Your task to perform on an android device: When is my next appointment? Image 0: 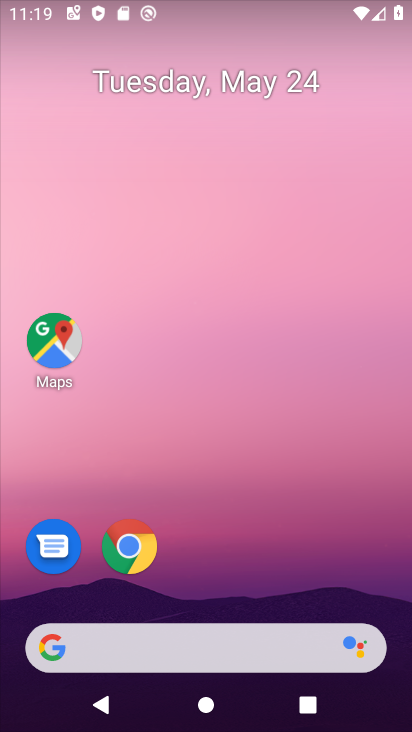
Step 0: drag from (228, 597) to (232, 248)
Your task to perform on an android device: When is my next appointment? Image 1: 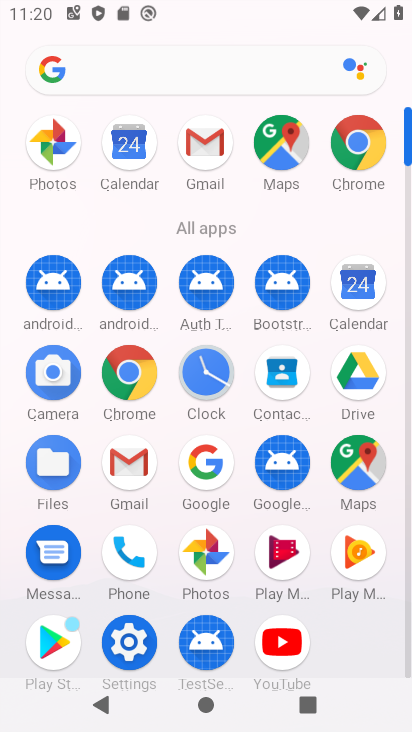
Step 1: click (134, 155)
Your task to perform on an android device: When is my next appointment? Image 2: 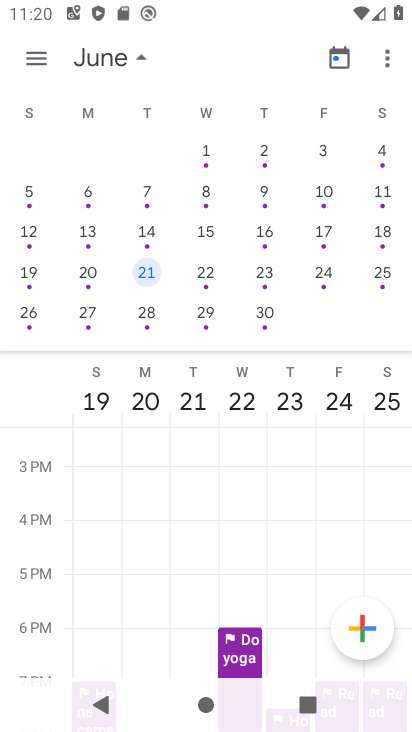
Step 2: click (36, 58)
Your task to perform on an android device: When is my next appointment? Image 3: 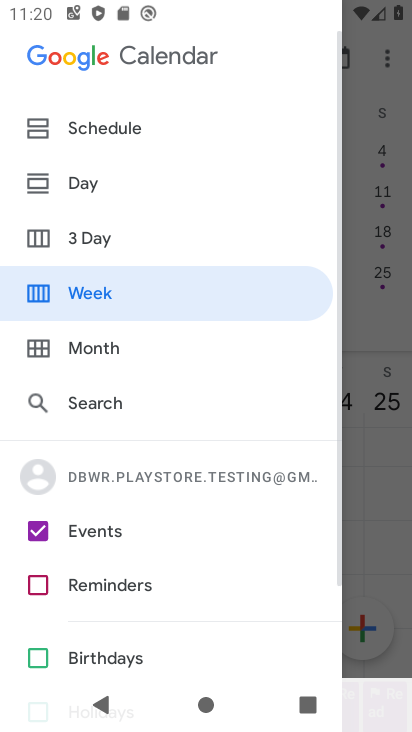
Step 3: click (77, 133)
Your task to perform on an android device: When is my next appointment? Image 4: 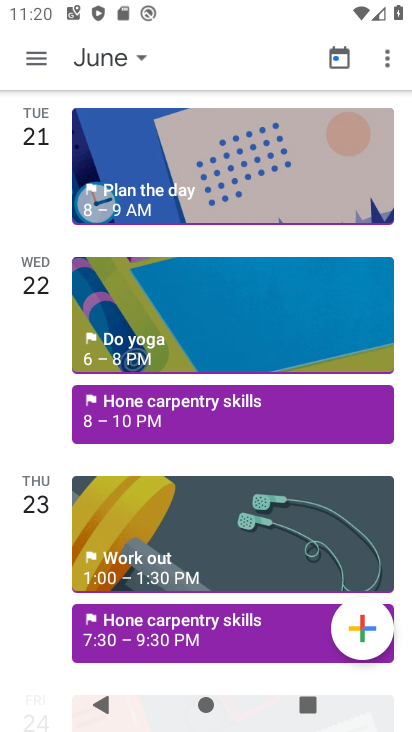
Step 4: click (105, 74)
Your task to perform on an android device: When is my next appointment? Image 5: 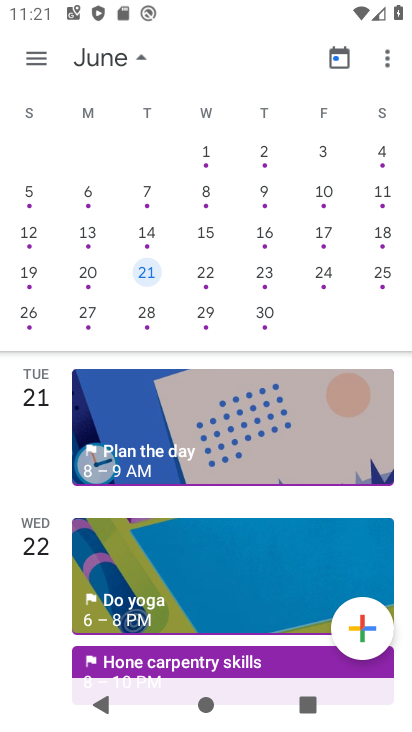
Step 5: drag from (55, 212) to (389, 203)
Your task to perform on an android device: When is my next appointment? Image 6: 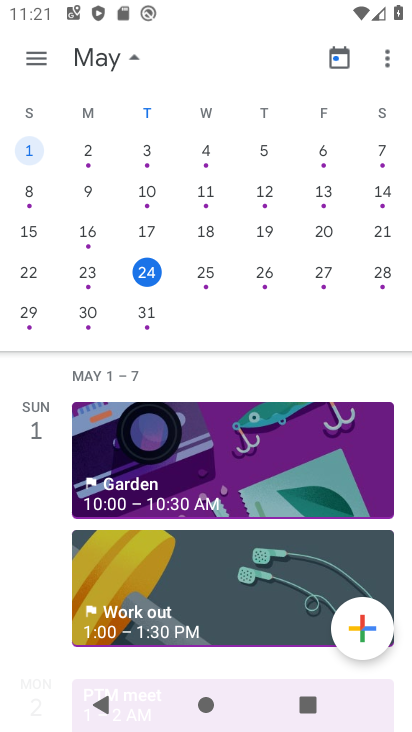
Step 6: click (210, 276)
Your task to perform on an android device: When is my next appointment? Image 7: 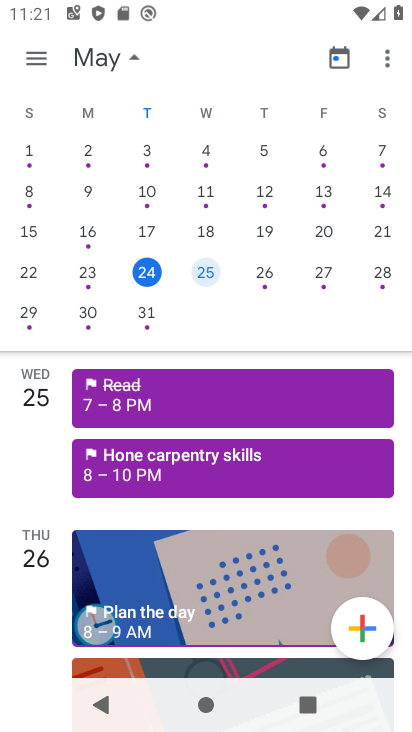
Step 7: click (125, 75)
Your task to perform on an android device: When is my next appointment? Image 8: 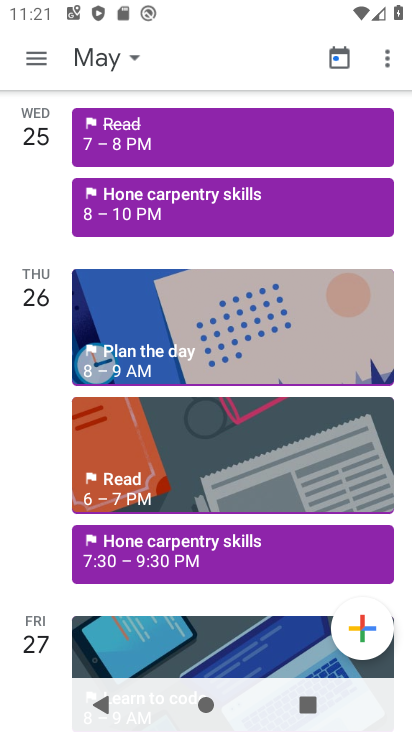
Step 8: task complete